Your task to perform on an android device: check google app version Image 0: 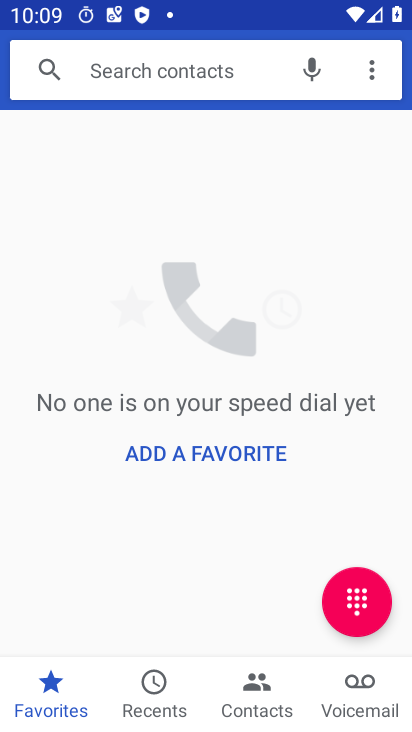
Step 0: press home button
Your task to perform on an android device: check google app version Image 1: 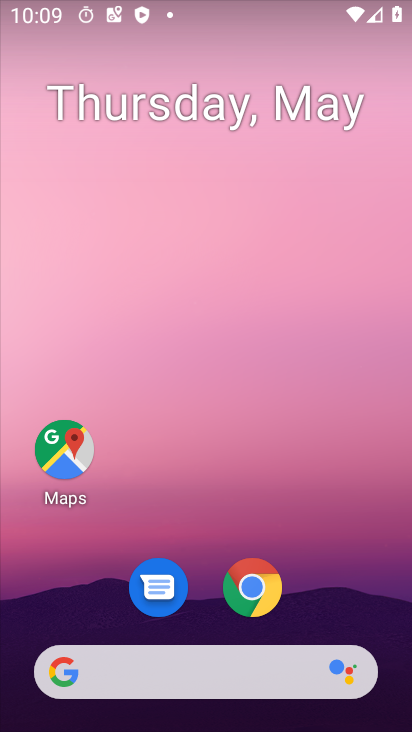
Step 1: drag from (307, 594) to (302, 14)
Your task to perform on an android device: check google app version Image 2: 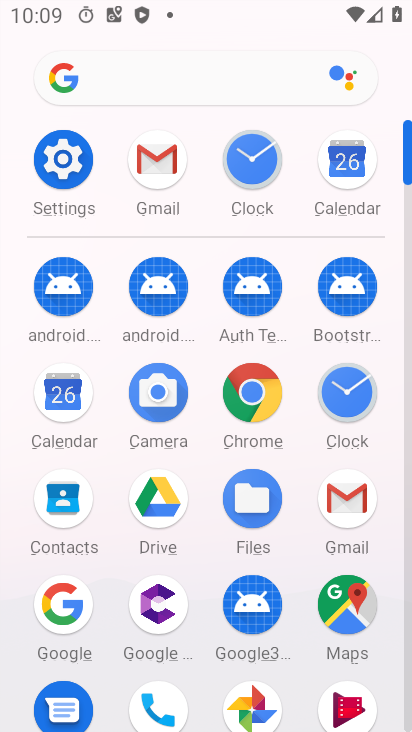
Step 2: click (58, 609)
Your task to perform on an android device: check google app version Image 3: 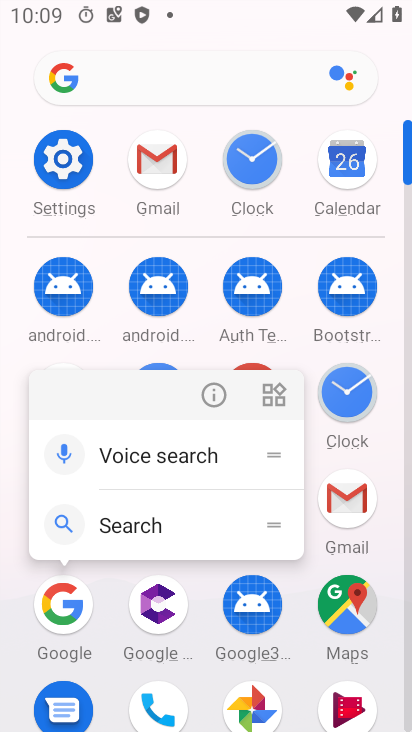
Step 3: click (211, 391)
Your task to perform on an android device: check google app version Image 4: 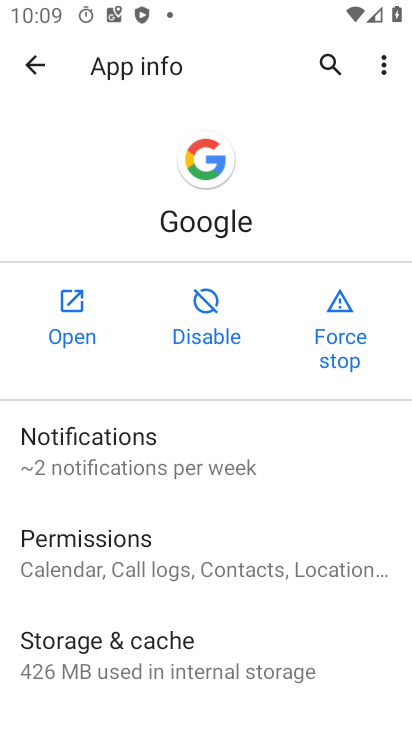
Step 4: drag from (232, 591) to (232, 52)
Your task to perform on an android device: check google app version Image 5: 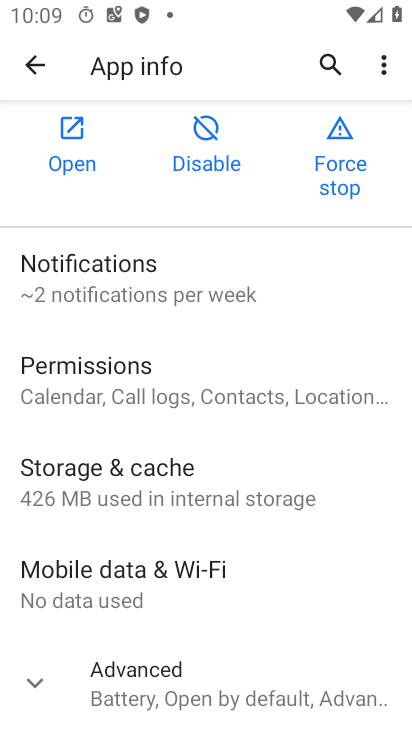
Step 5: drag from (187, 557) to (175, 233)
Your task to perform on an android device: check google app version Image 6: 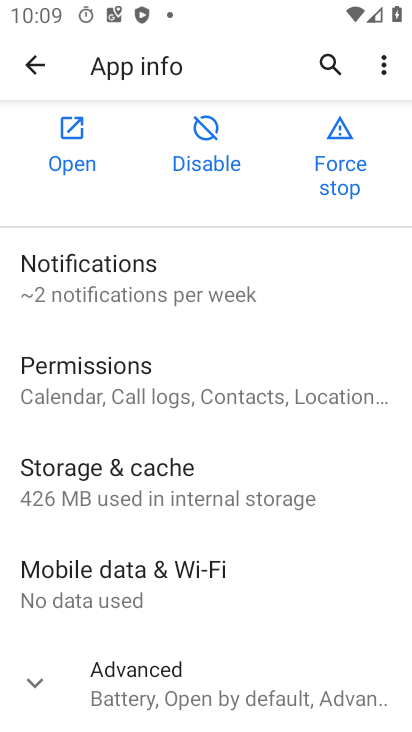
Step 6: click (34, 688)
Your task to perform on an android device: check google app version Image 7: 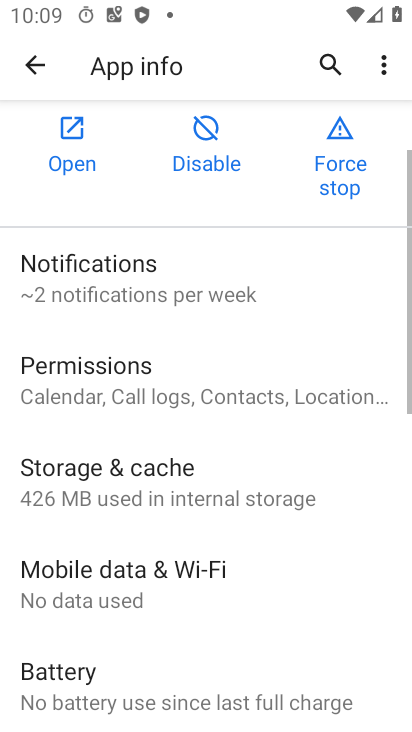
Step 7: task complete